Your task to perform on an android device: Open Yahoo.com Image 0: 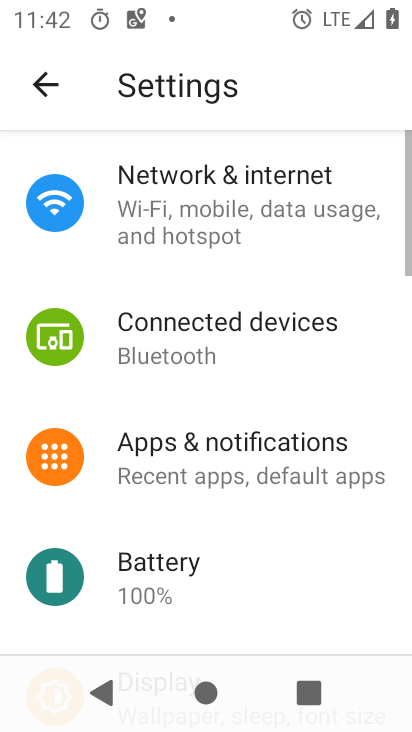
Step 0: press back button
Your task to perform on an android device: Open Yahoo.com Image 1: 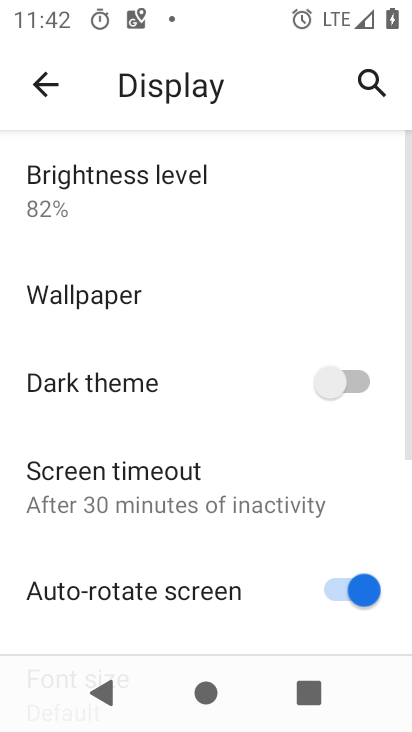
Step 1: press home button
Your task to perform on an android device: Open Yahoo.com Image 2: 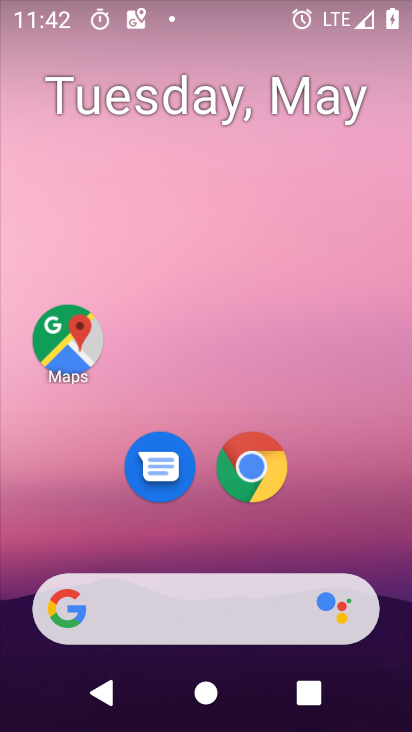
Step 2: drag from (364, 533) to (271, 23)
Your task to perform on an android device: Open Yahoo.com Image 3: 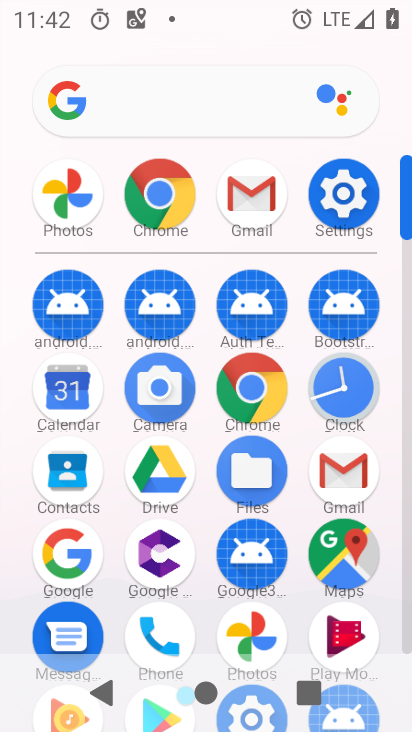
Step 3: click (160, 188)
Your task to perform on an android device: Open Yahoo.com Image 4: 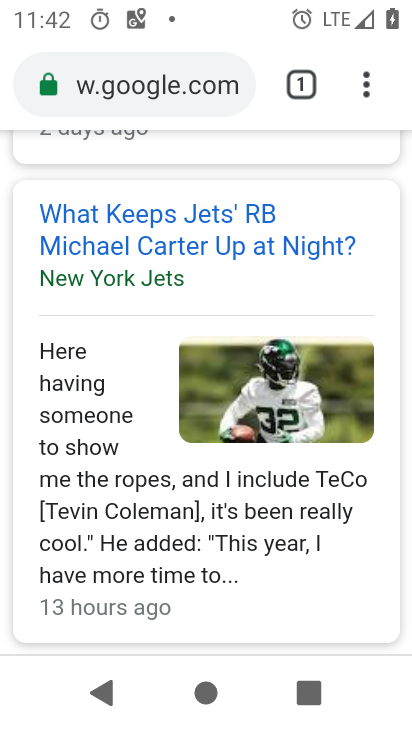
Step 4: click (152, 76)
Your task to perform on an android device: Open Yahoo.com Image 5: 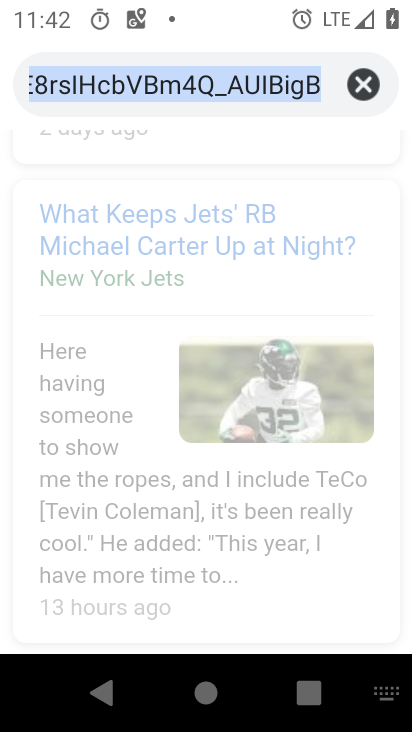
Step 5: click (361, 79)
Your task to perform on an android device: Open Yahoo.com Image 6: 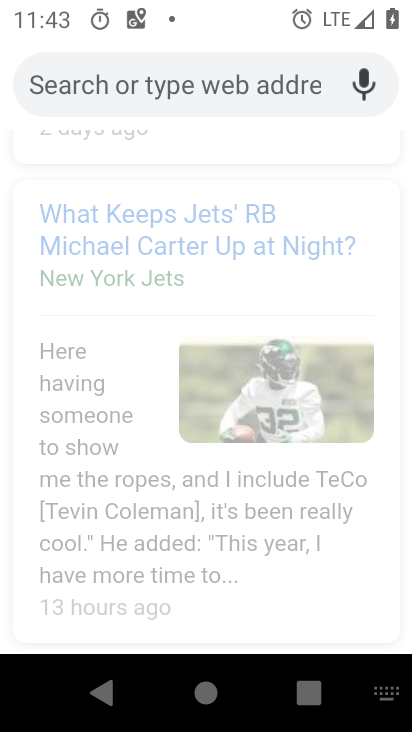
Step 6: type "Yahoo.com"
Your task to perform on an android device: Open Yahoo.com Image 7: 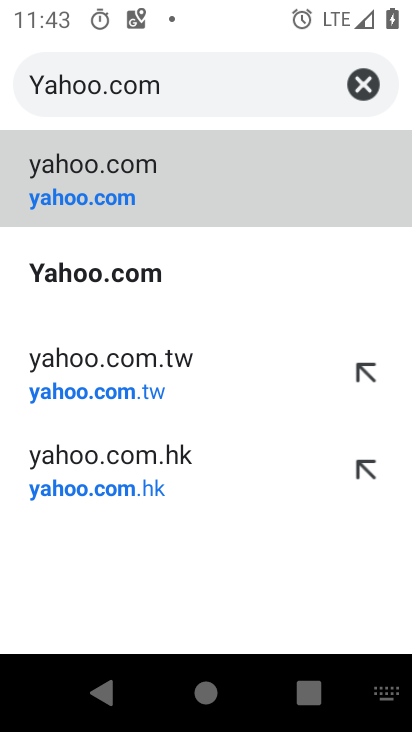
Step 7: click (169, 189)
Your task to perform on an android device: Open Yahoo.com Image 8: 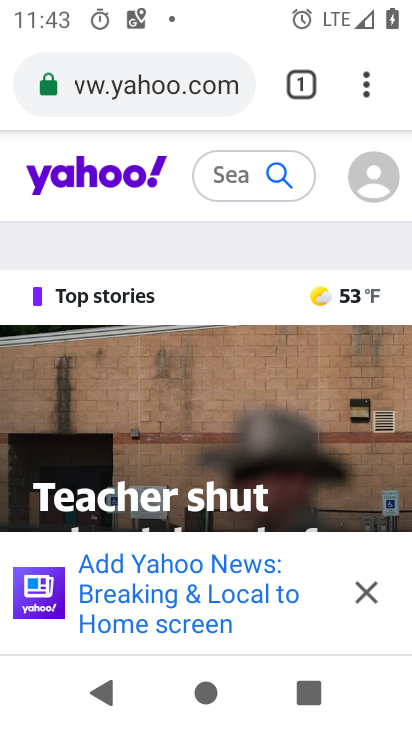
Step 8: task complete